Your task to perform on an android device: snooze an email in the gmail app Image 0: 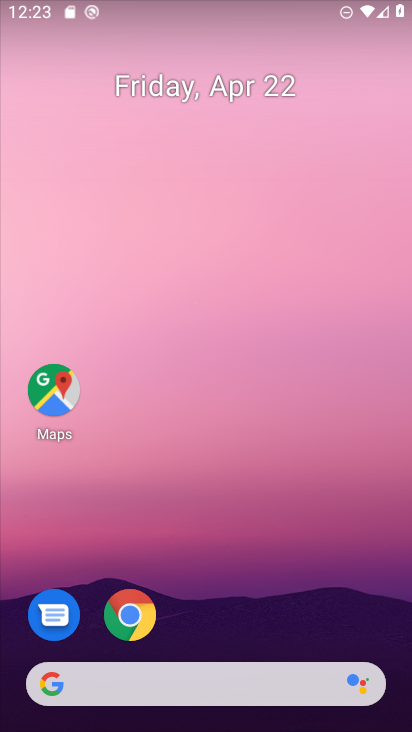
Step 0: drag from (182, 618) to (318, 92)
Your task to perform on an android device: snooze an email in the gmail app Image 1: 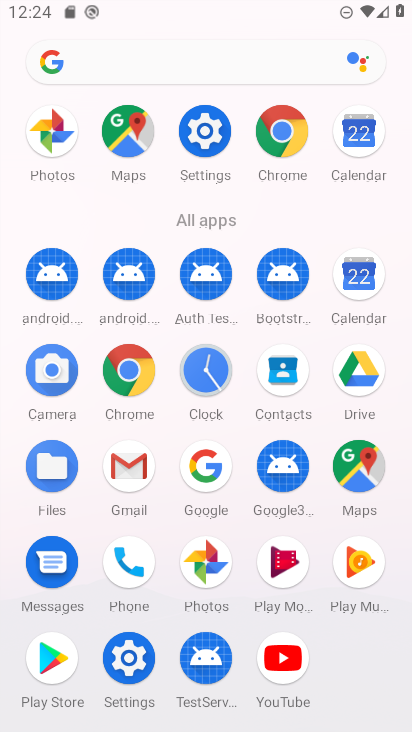
Step 1: click (119, 466)
Your task to perform on an android device: snooze an email in the gmail app Image 2: 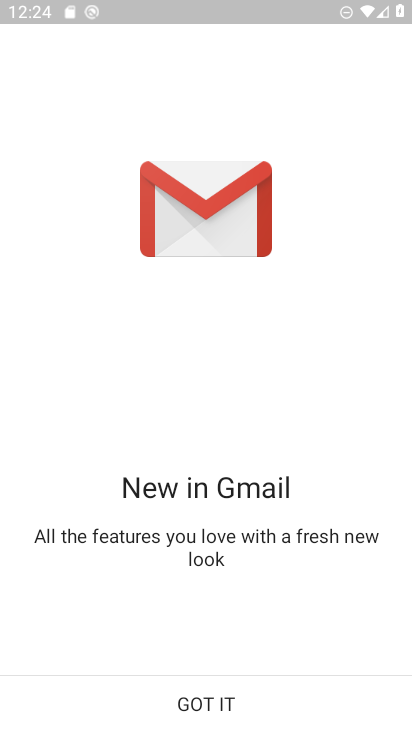
Step 2: click (224, 704)
Your task to perform on an android device: snooze an email in the gmail app Image 3: 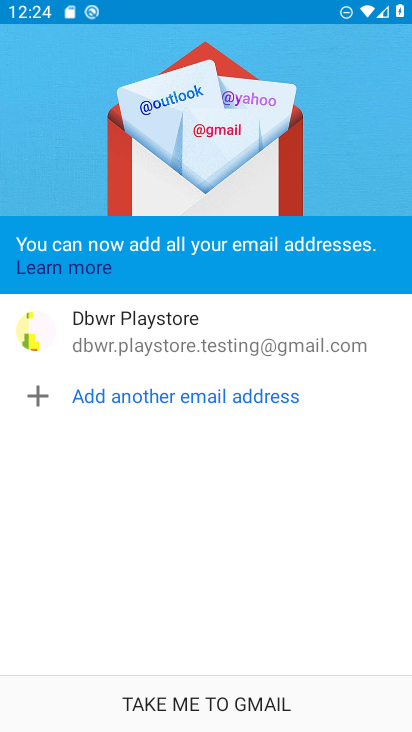
Step 3: click (224, 704)
Your task to perform on an android device: snooze an email in the gmail app Image 4: 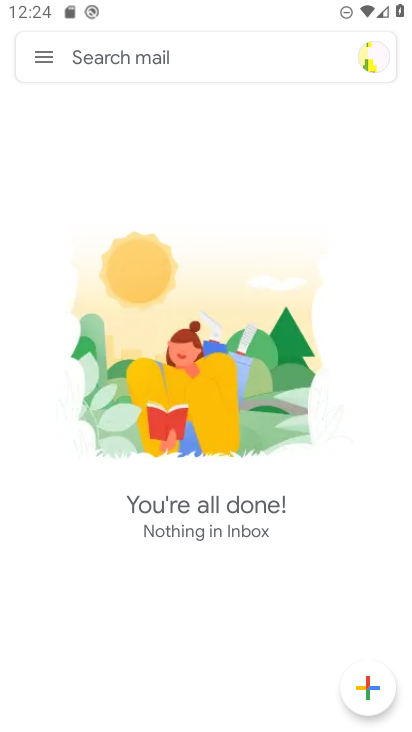
Step 4: click (52, 66)
Your task to perform on an android device: snooze an email in the gmail app Image 5: 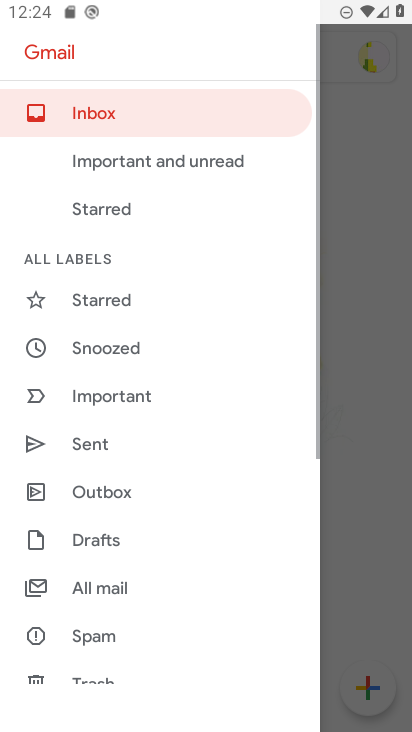
Step 5: click (153, 583)
Your task to perform on an android device: snooze an email in the gmail app Image 6: 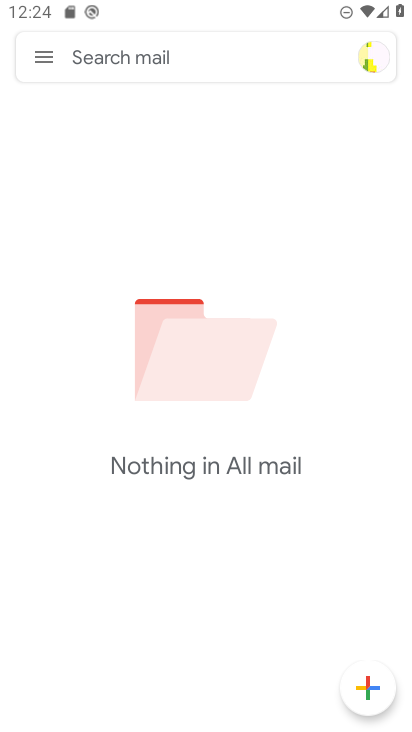
Step 6: task complete